Your task to perform on an android device: What's the weather today? Image 0: 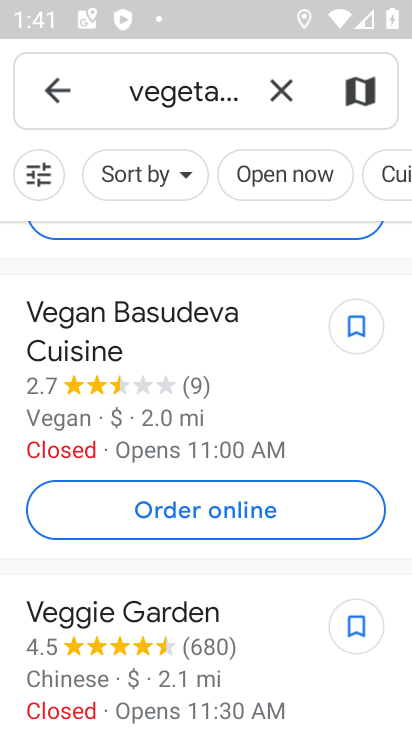
Step 0: press home button
Your task to perform on an android device: What's the weather today? Image 1: 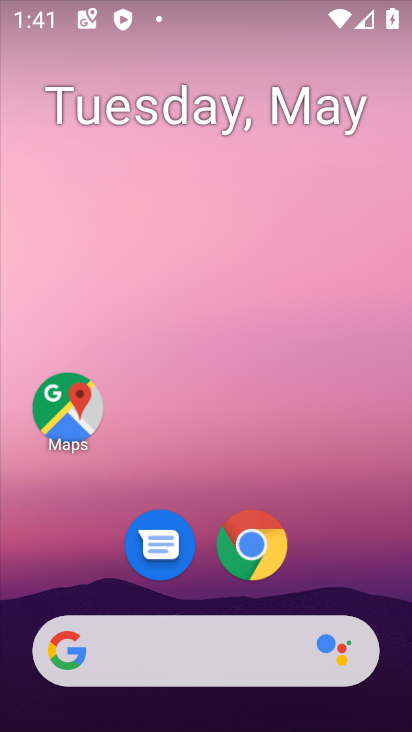
Step 1: drag from (8, 271) to (352, 228)
Your task to perform on an android device: What's the weather today? Image 2: 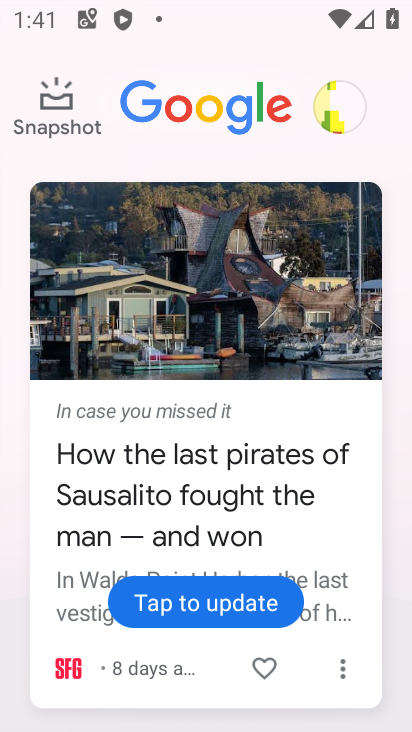
Step 2: press back button
Your task to perform on an android device: What's the weather today? Image 3: 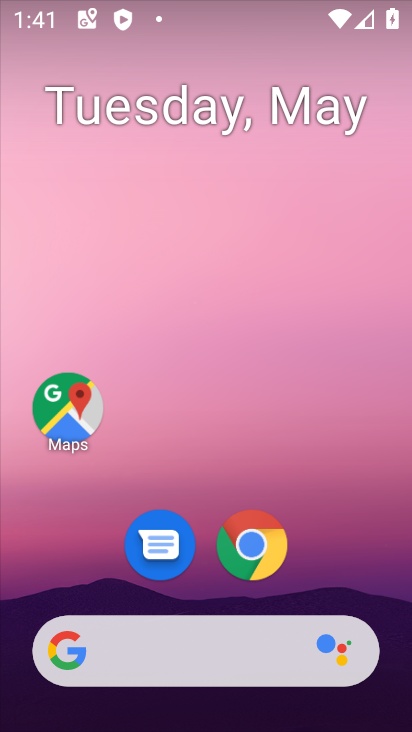
Step 3: click (143, 648)
Your task to perform on an android device: What's the weather today? Image 4: 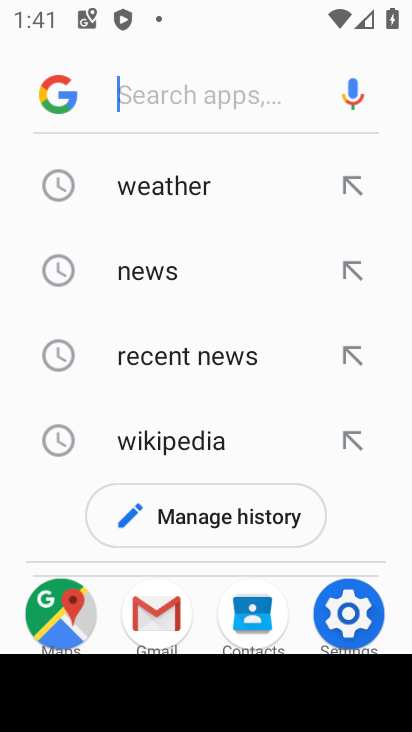
Step 4: click (155, 185)
Your task to perform on an android device: What's the weather today? Image 5: 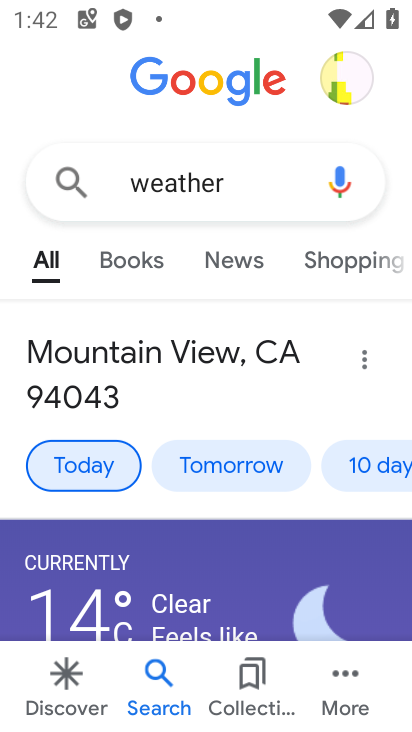
Step 5: task complete